Your task to perform on an android device: empty trash in google photos Image 0: 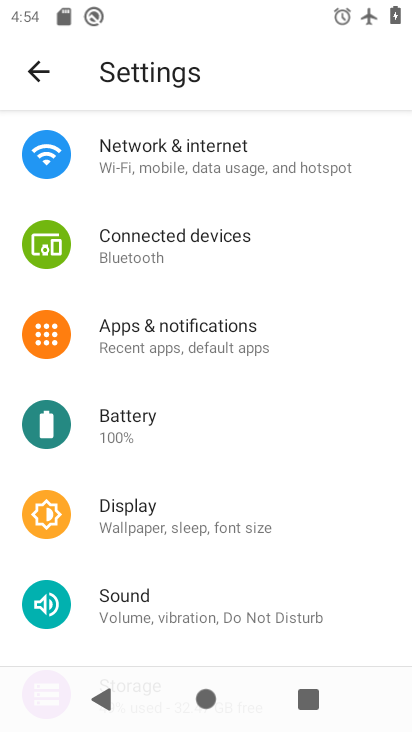
Step 0: press home button
Your task to perform on an android device: empty trash in google photos Image 1: 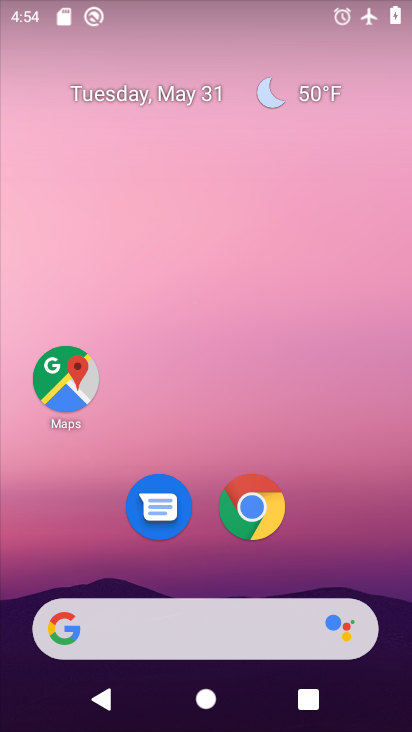
Step 1: drag from (322, 469) to (241, 0)
Your task to perform on an android device: empty trash in google photos Image 2: 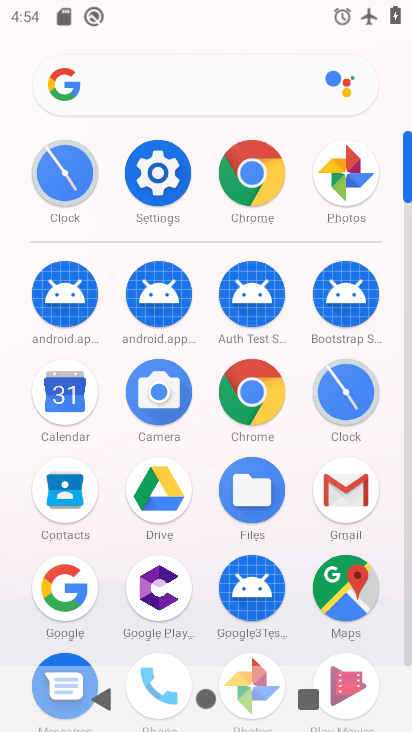
Step 2: click (346, 184)
Your task to perform on an android device: empty trash in google photos Image 3: 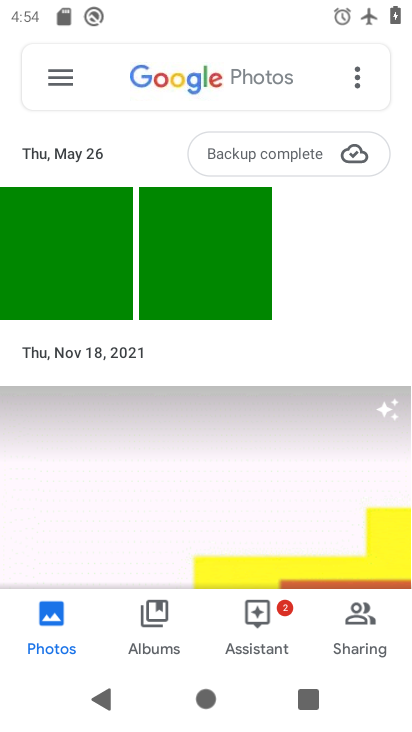
Step 3: click (65, 90)
Your task to perform on an android device: empty trash in google photos Image 4: 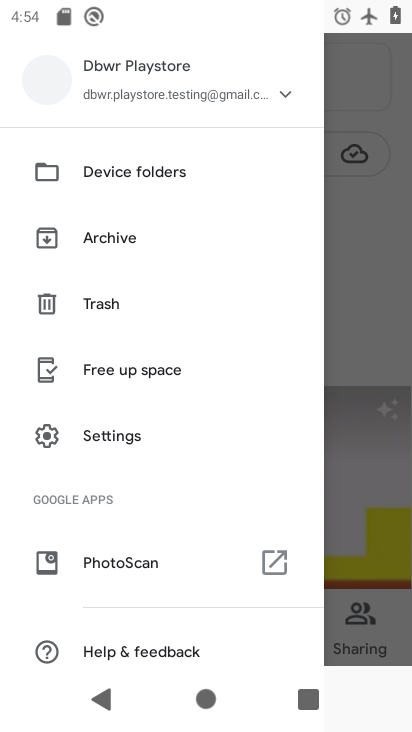
Step 4: click (113, 297)
Your task to perform on an android device: empty trash in google photos Image 5: 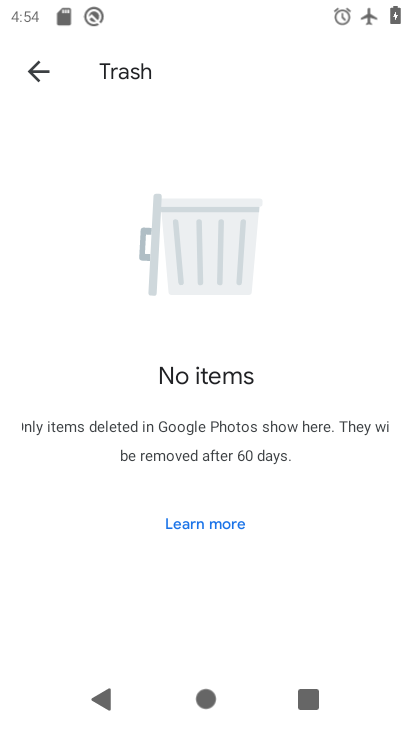
Step 5: task complete